Your task to perform on an android device: refresh tabs in the chrome app Image 0: 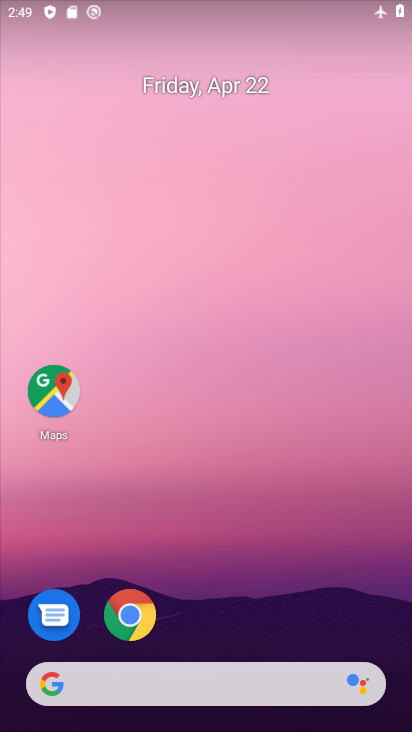
Step 0: click (134, 612)
Your task to perform on an android device: refresh tabs in the chrome app Image 1: 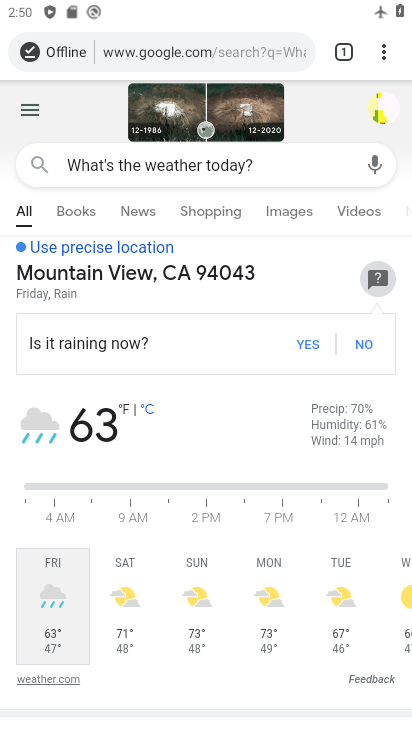
Step 1: click (386, 75)
Your task to perform on an android device: refresh tabs in the chrome app Image 2: 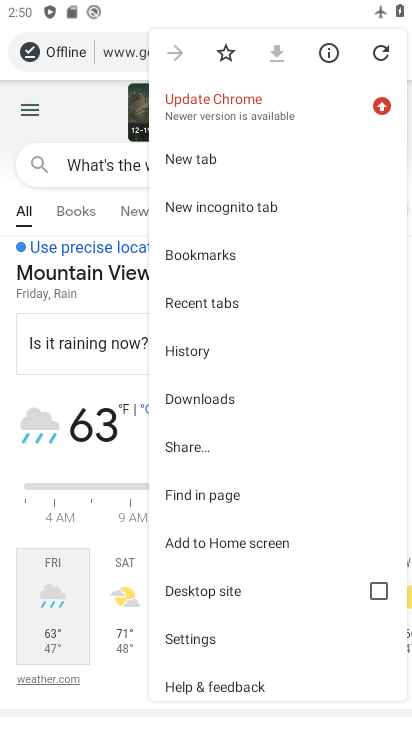
Step 2: click (386, 55)
Your task to perform on an android device: refresh tabs in the chrome app Image 3: 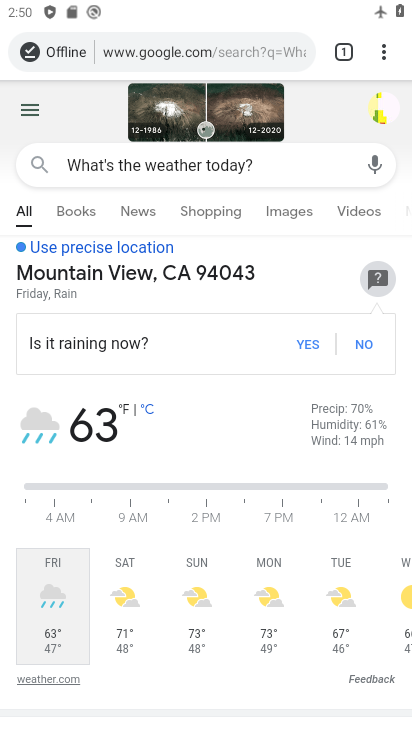
Step 3: task complete